Your task to perform on an android device: Open the map Image 0: 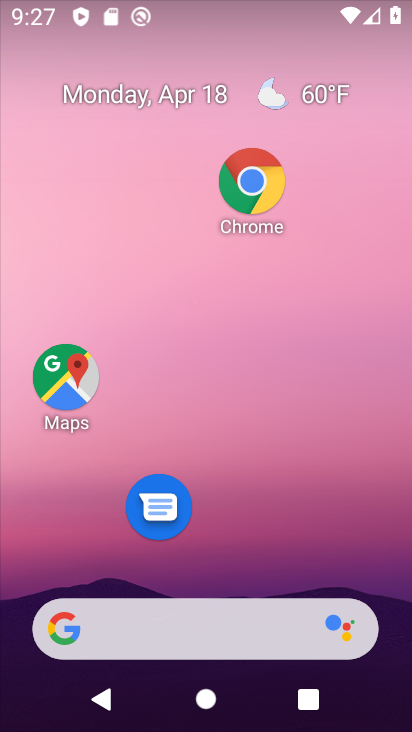
Step 0: click (48, 386)
Your task to perform on an android device: Open the map Image 1: 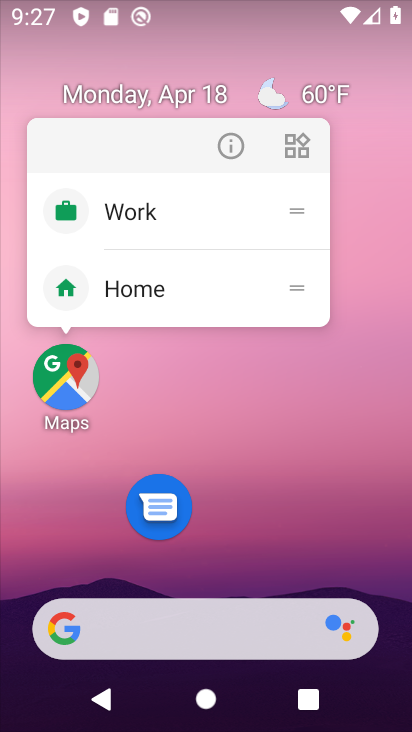
Step 1: click (65, 354)
Your task to perform on an android device: Open the map Image 2: 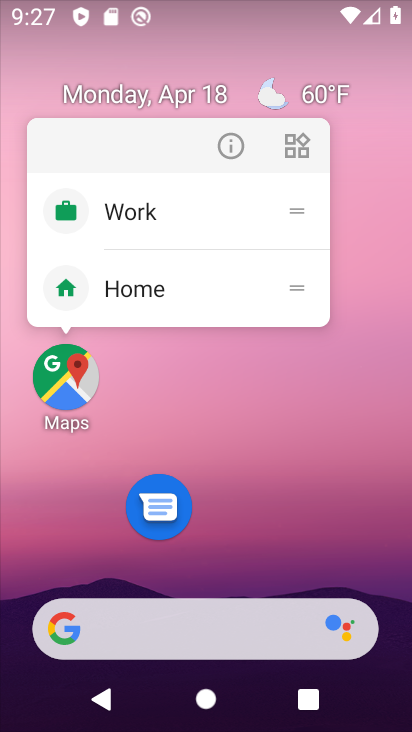
Step 2: click (89, 378)
Your task to perform on an android device: Open the map Image 3: 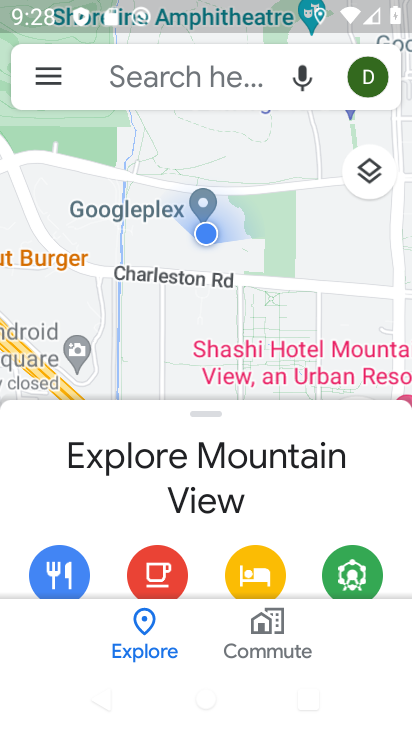
Step 3: task complete